Your task to perform on an android device: Search for vegetarian restaurants on Maps Image 0: 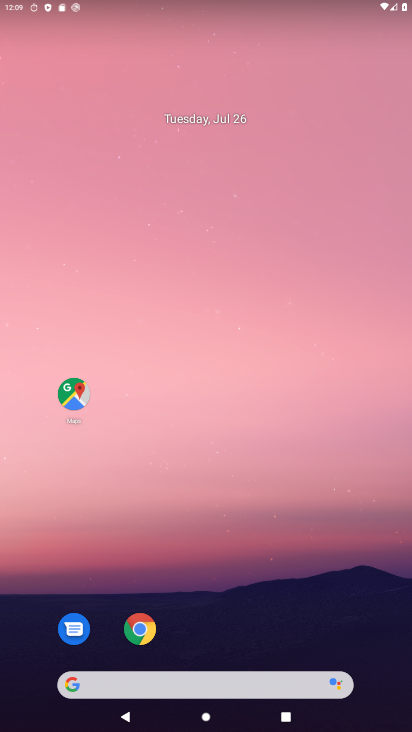
Step 0: drag from (281, 299) to (276, 68)
Your task to perform on an android device: Search for vegetarian restaurants on Maps Image 1: 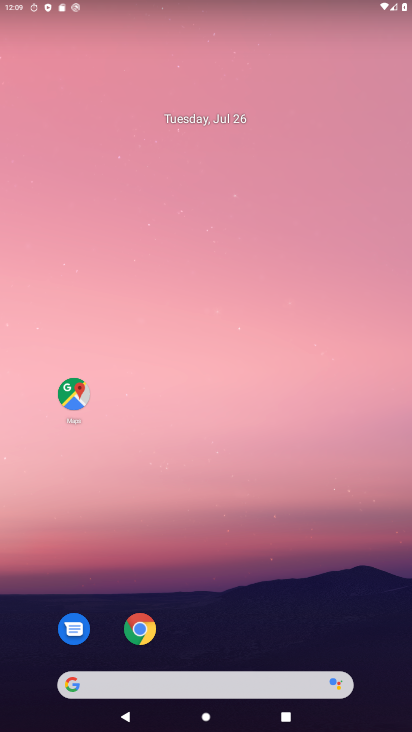
Step 1: drag from (241, 471) to (161, 72)
Your task to perform on an android device: Search for vegetarian restaurants on Maps Image 2: 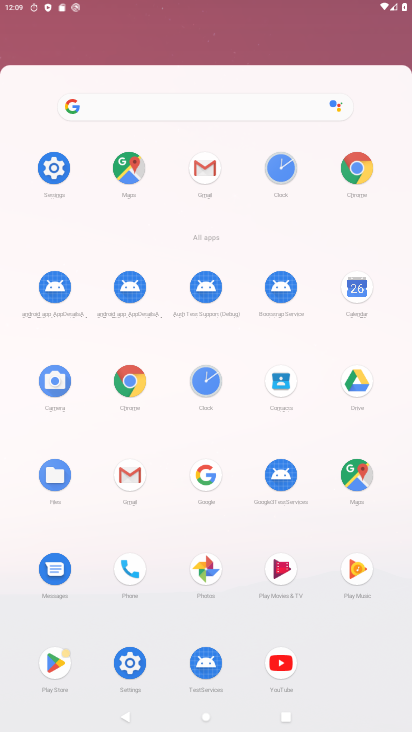
Step 2: drag from (209, 579) to (382, 398)
Your task to perform on an android device: Search for vegetarian restaurants on Maps Image 3: 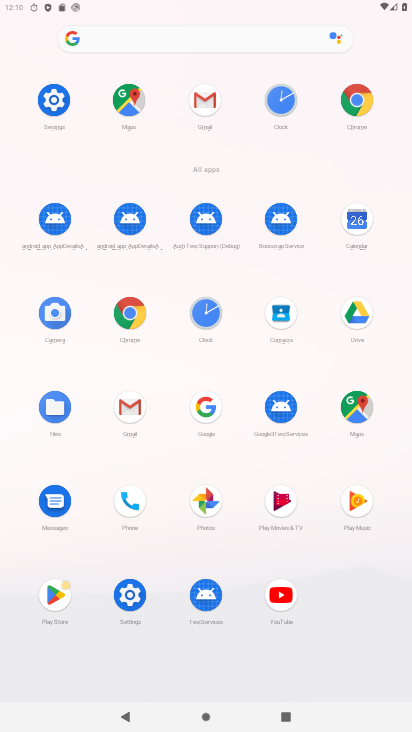
Step 3: click (352, 408)
Your task to perform on an android device: Search for vegetarian restaurants on Maps Image 4: 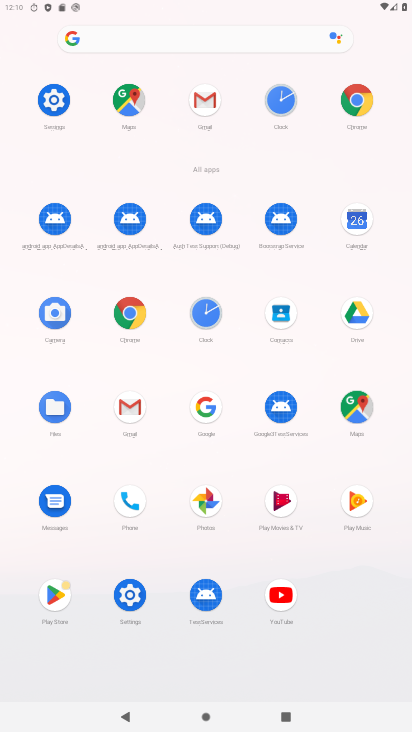
Step 4: click (354, 406)
Your task to perform on an android device: Search for vegetarian restaurants on Maps Image 5: 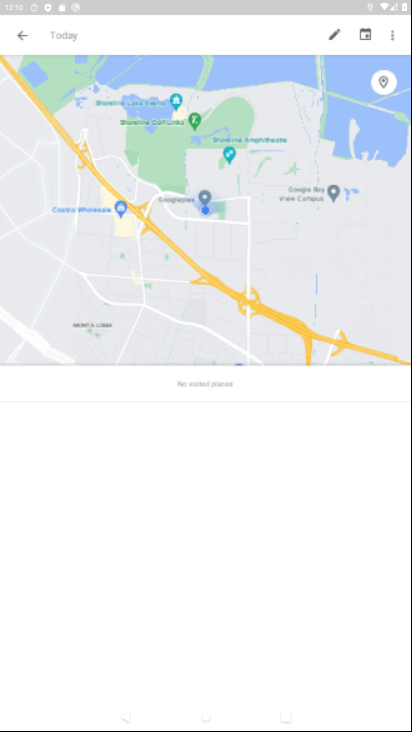
Step 5: click (359, 408)
Your task to perform on an android device: Search for vegetarian restaurants on Maps Image 6: 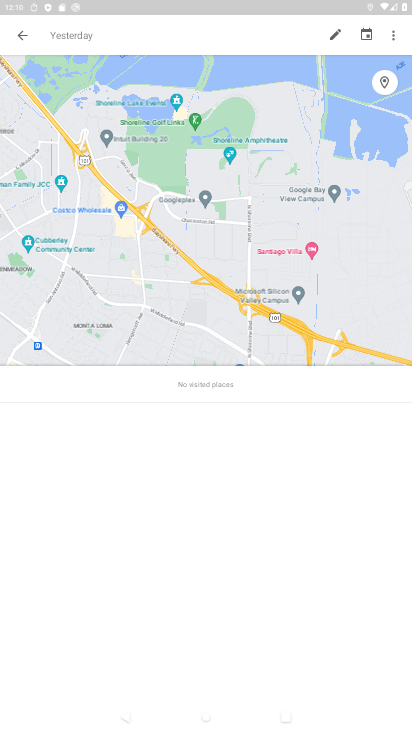
Step 6: click (24, 33)
Your task to perform on an android device: Search for vegetarian restaurants on Maps Image 7: 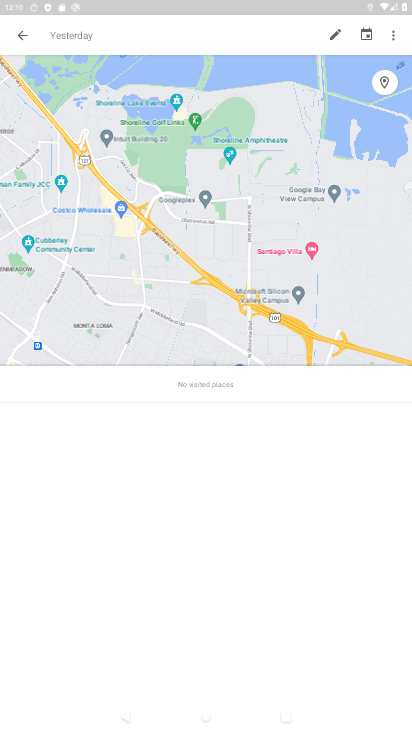
Step 7: click (22, 38)
Your task to perform on an android device: Search for vegetarian restaurants on Maps Image 8: 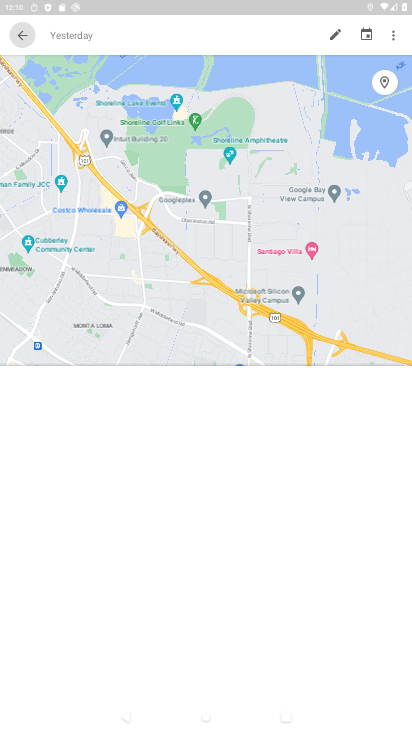
Step 8: click (29, 45)
Your task to perform on an android device: Search for vegetarian restaurants on Maps Image 9: 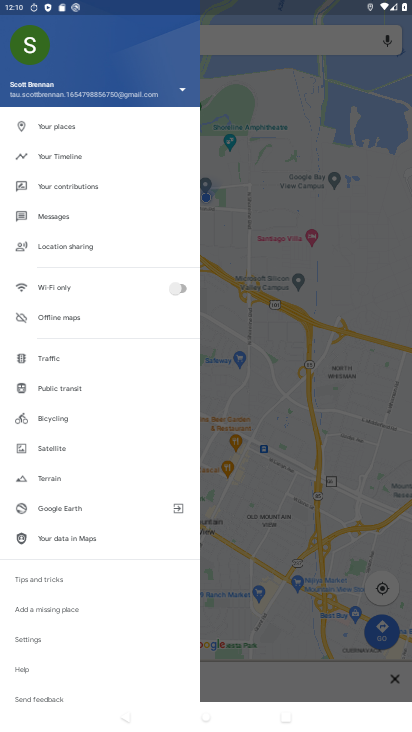
Step 9: drag from (262, 160) to (243, 238)
Your task to perform on an android device: Search for vegetarian restaurants on Maps Image 10: 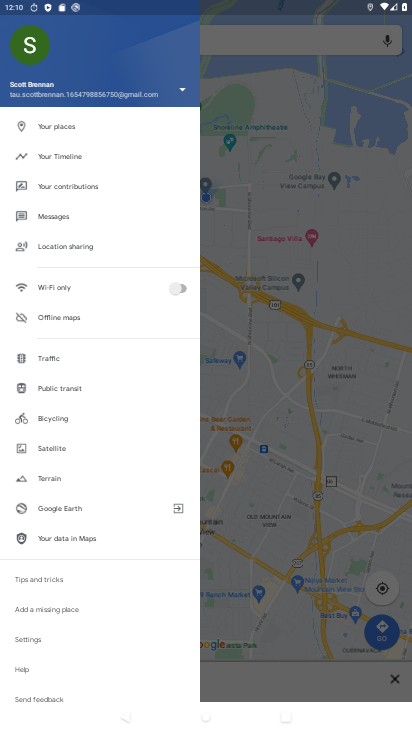
Step 10: click (243, 238)
Your task to perform on an android device: Search for vegetarian restaurants on Maps Image 11: 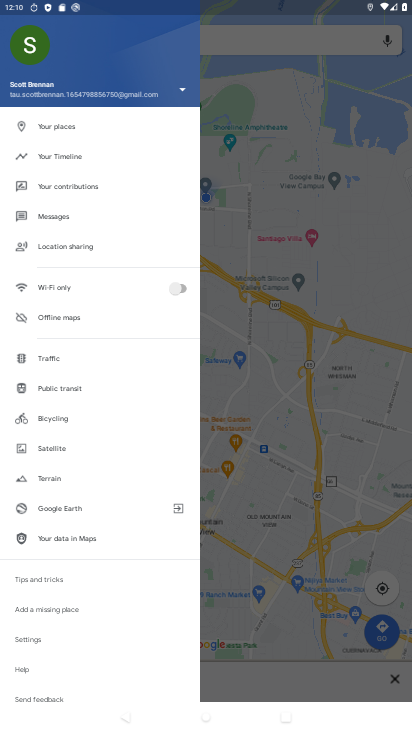
Step 11: click (266, 196)
Your task to perform on an android device: Search for vegetarian restaurants on Maps Image 12: 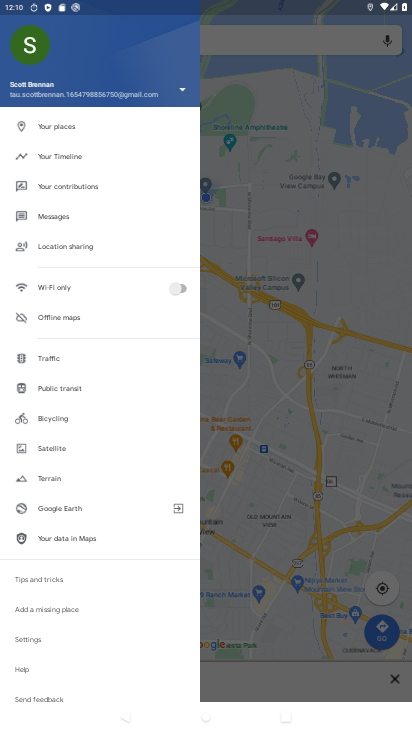
Step 12: click (267, 195)
Your task to perform on an android device: Search for vegetarian restaurants on Maps Image 13: 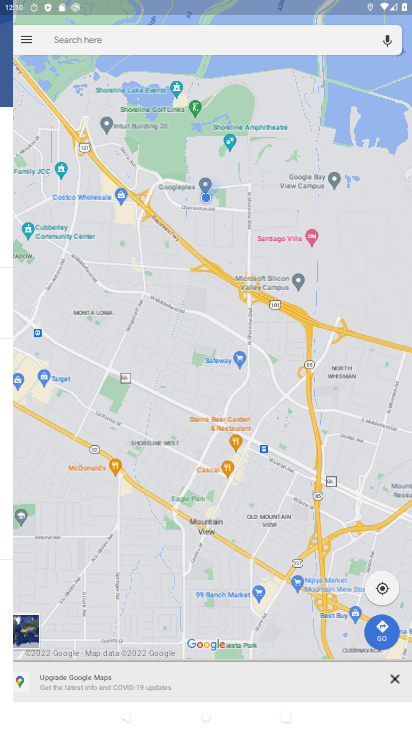
Step 13: click (280, 205)
Your task to perform on an android device: Search for vegetarian restaurants on Maps Image 14: 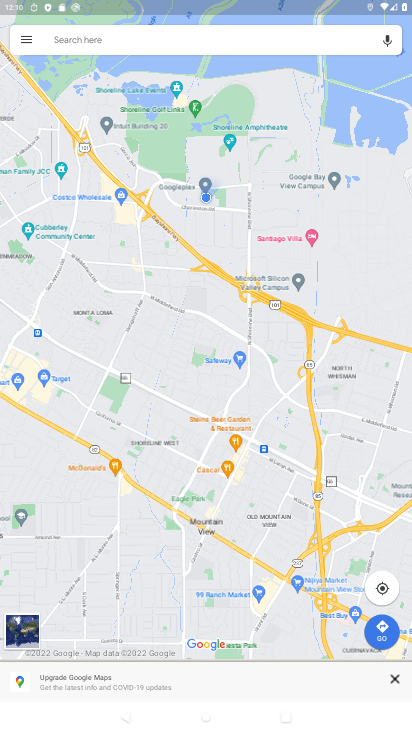
Step 14: click (284, 215)
Your task to perform on an android device: Search for vegetarian restaurants on Maps Image 15: 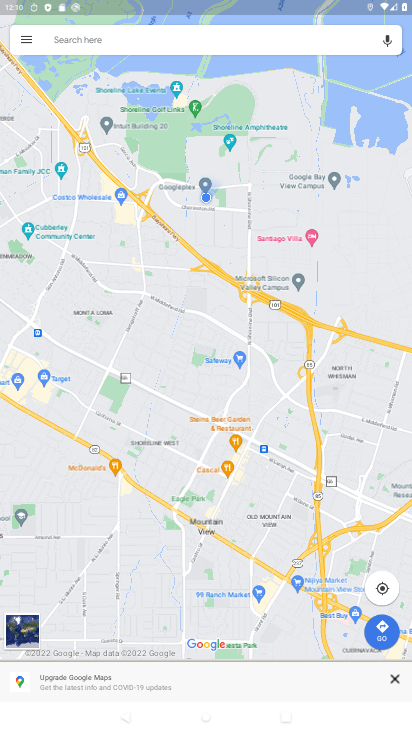
Step 15: click (91, 44)
Your task to perform on an android device: Search for vegetarian restaurants on Maps Image 16: 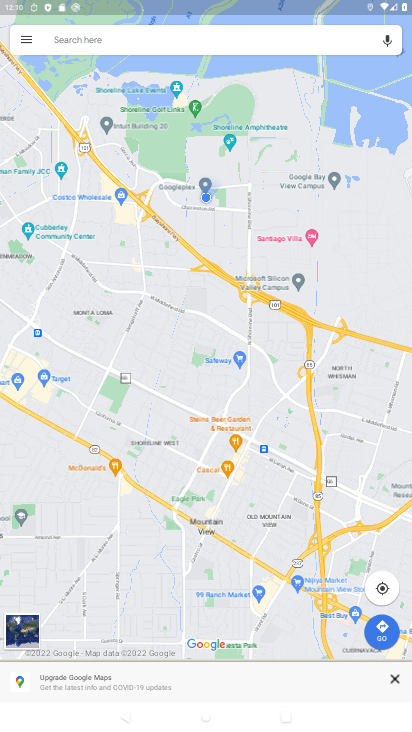
Step 16: click (80, 37)
Your task to perform on an android device: Search for vegetarian restaurants on Maps Image 17: 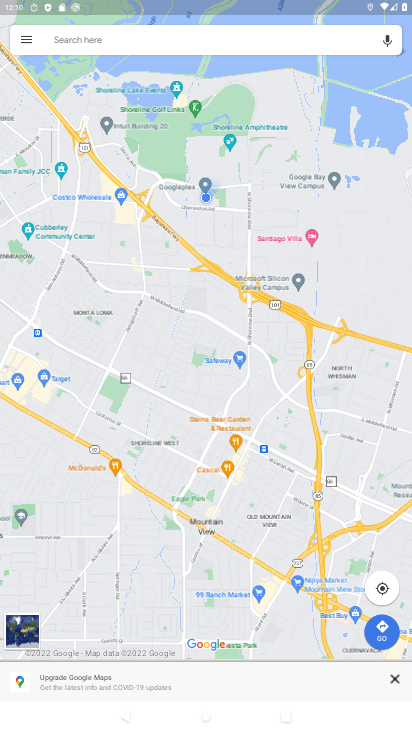
Step 17: click (83, 35)
Your task to perform on an android device: Search for vegetarian restaurants on Maps Image 18: 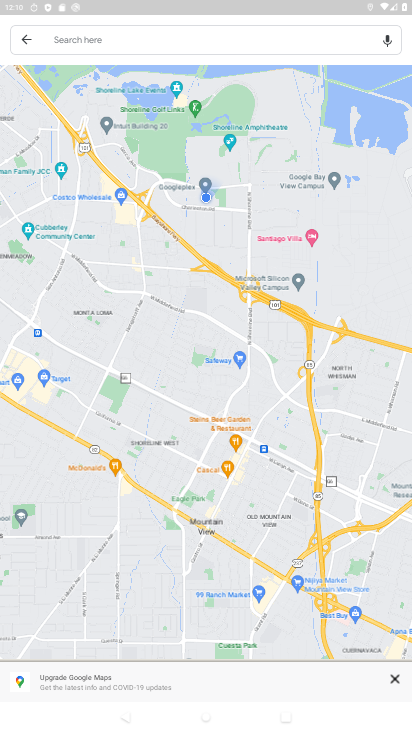
Step 18: click (99, 41)
Your task to perform on an android device: Search for vegetarian restaurants on Maps Image 19: 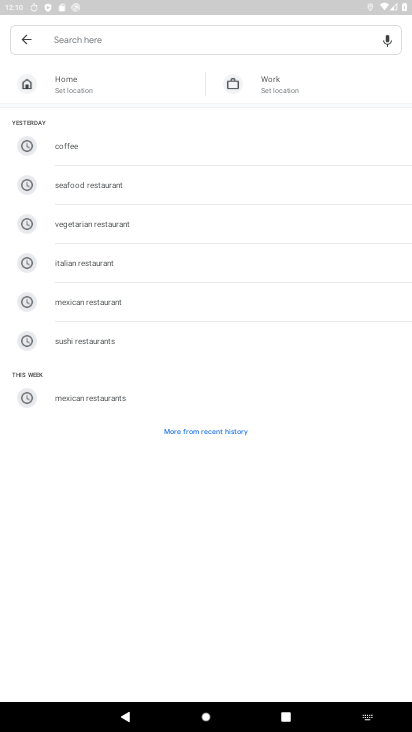
Step 19: click (101, 228)
Your task to perform on an android device: Search for vegetarian restaurants on Maps Image 20: 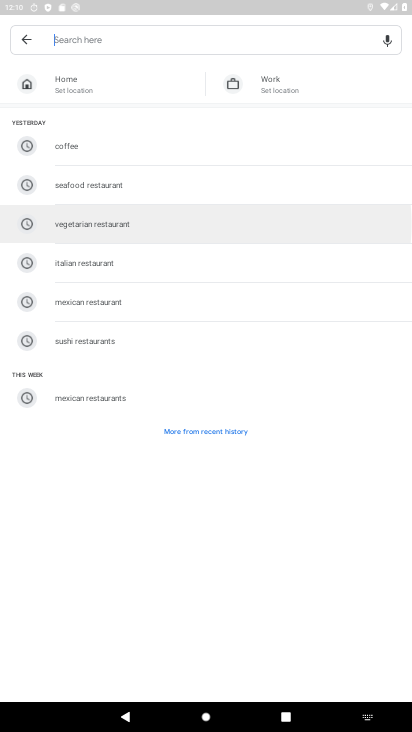
Step 20: click (101, 228)
Your task to perform on an android device: Search for vegetarian restaurants on Maps Image 21: 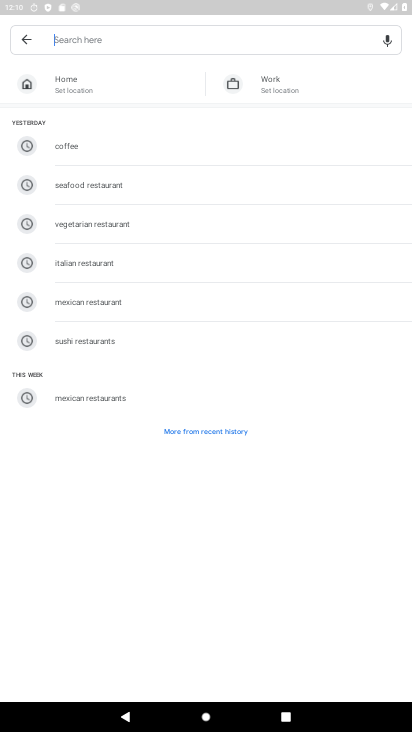
Step 21: click (101, 227)
Your task to perform on an android device: Search for vegetarian restaurants on Maps Image 22: 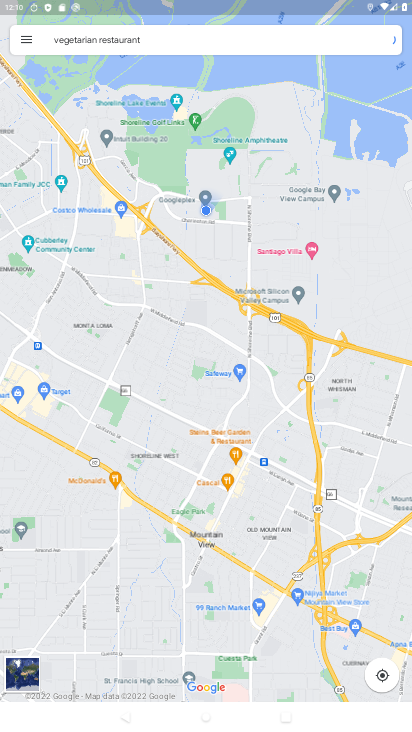
Step 22: click (101, 227)
Your task to perform on an android device: Search for vegetarian restaurants on Maps Image 23: 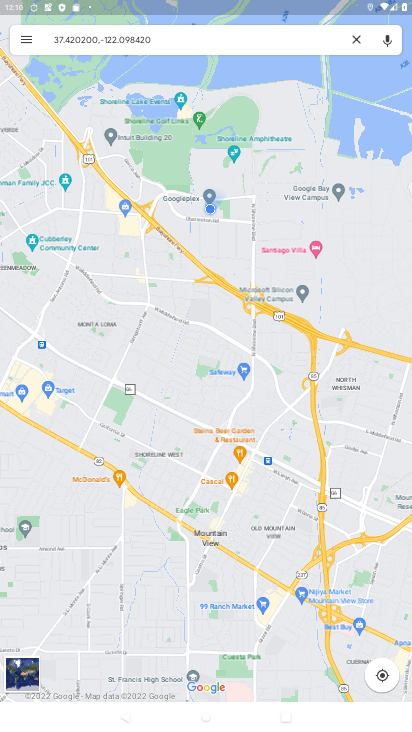
Step 23: task complete